Your task to perform on an android device: add a contact Image 0: 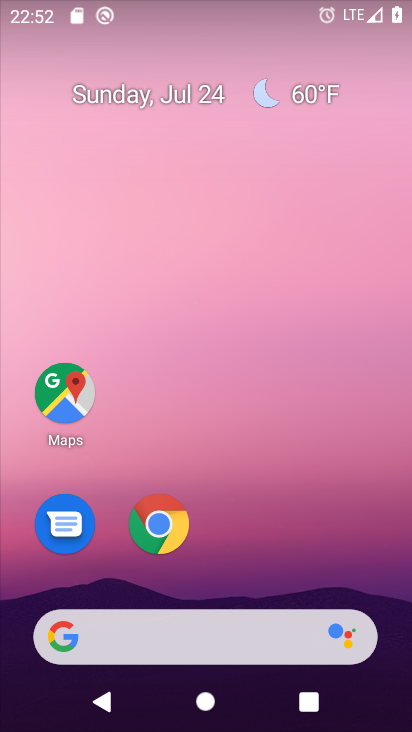
Step 0: drag from (313, 549) to (301, 2)
Your task to perform on an android device: add a contact Image 1: 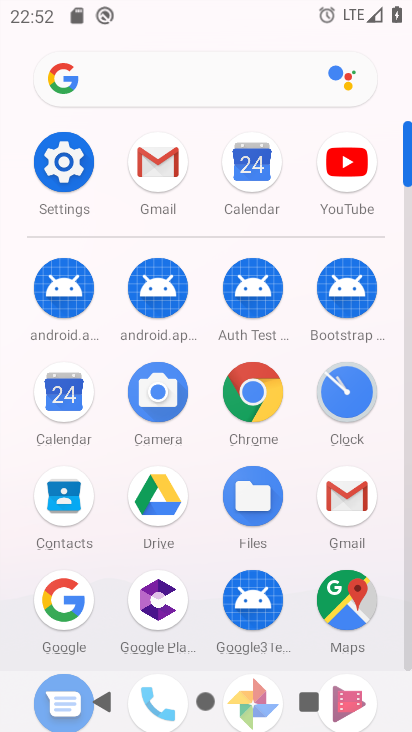
Step 1: click (67, 494)
Your task to perform on an android device: add a contact Image 2: 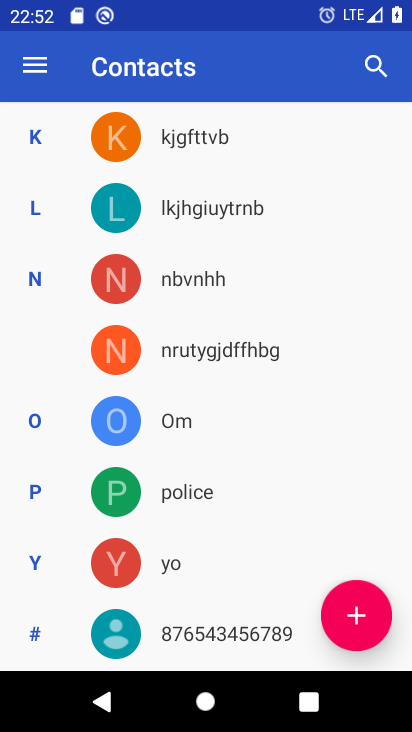
Step 2: click (362, 618)
Your task to perform on an android device: add a contact Image 3: 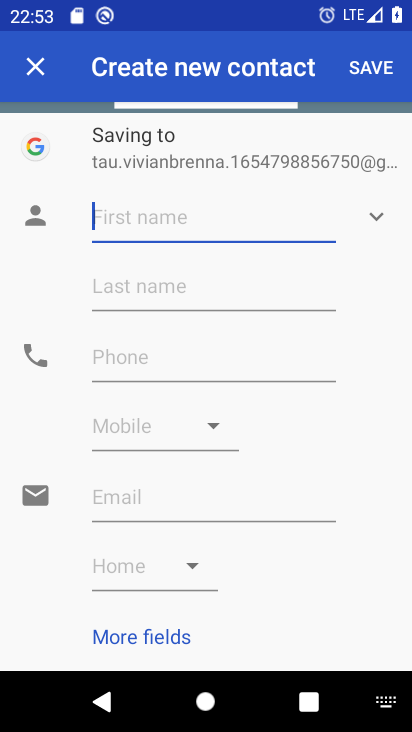
Step 3: type "Om Namo Shivay"
Your task to perform on an android device: add a contact Image 4: 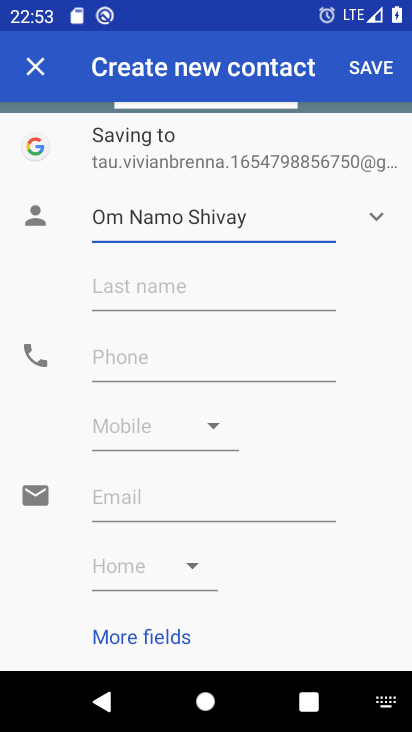
Step 4: click (239, 359)
Your task to perform on an android device: add a contact Image 5: 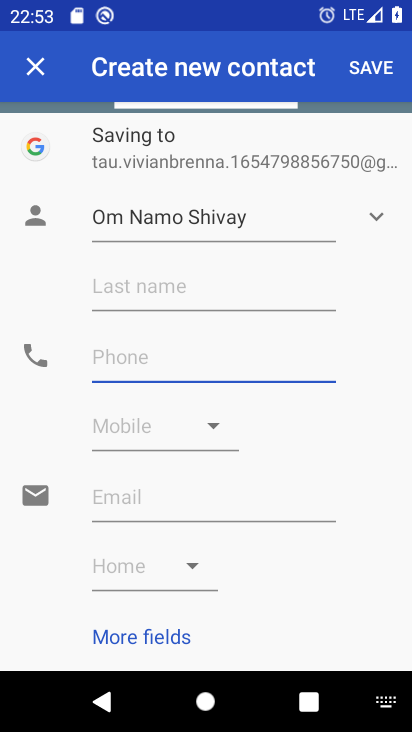
Step 5: type "+91999000000"
Your task to perform on an android device: add a contact Image 6: 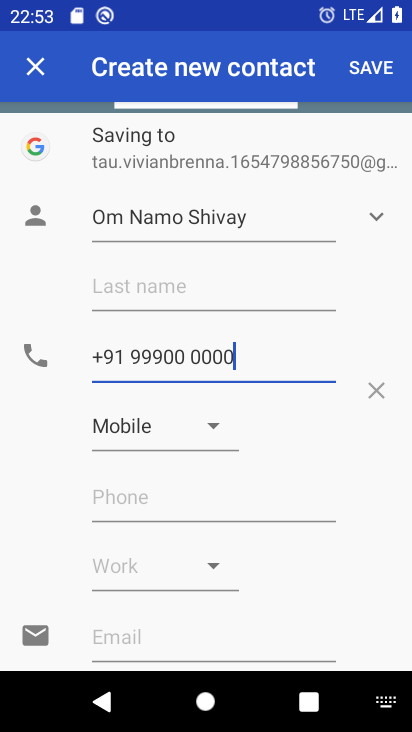
Step 6: type "0"
Your task to perform on an android device: add a contact Image 7: 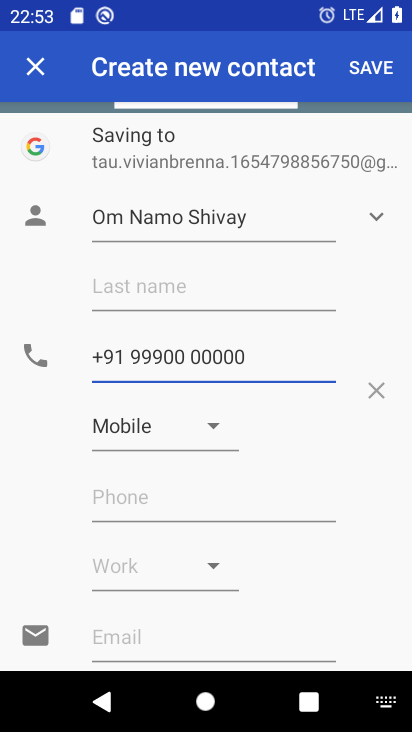
Step 7: click (379, 73)
Your task to perform on an android device: add a contact Image 8: 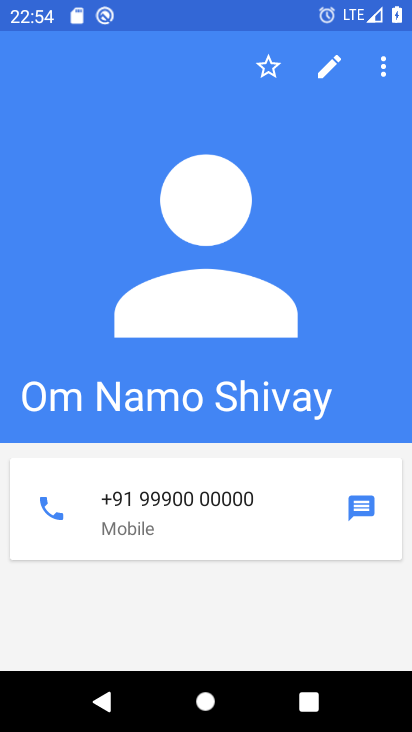
Step 8: task complete